Your task to perform on an android device: Open Google Chrome Image 0: 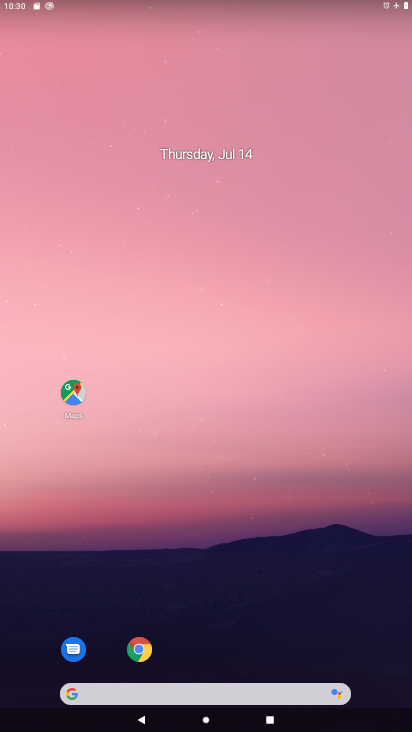
Step 0: click (143, 652)
Your task to perform on an android device: Open Google Chrome Image 1: 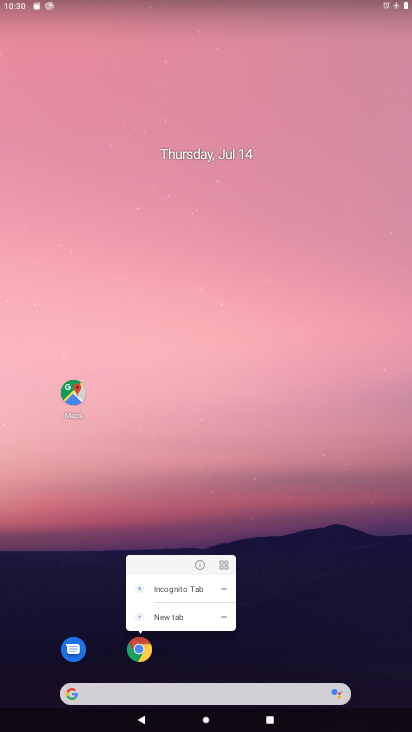
Step 1: click (143, 652)
Your task to perform on an android device: Open Google Chrome Image 2: 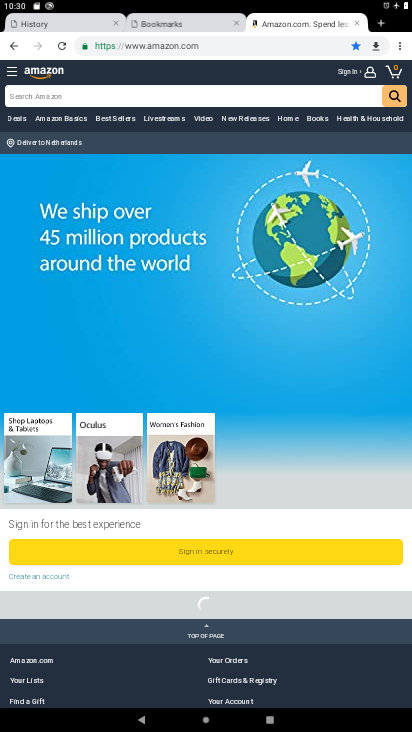
Step 2: task complete